Your task to perform on an android device: Open wifi settings Image 0: 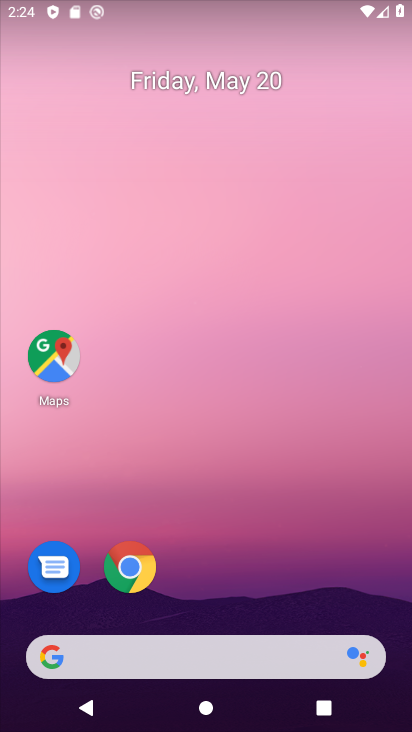
Step 0: drag from (132, 607) to (140, 136)
Your task to perform on an android device: Open wifi settings Image 1: 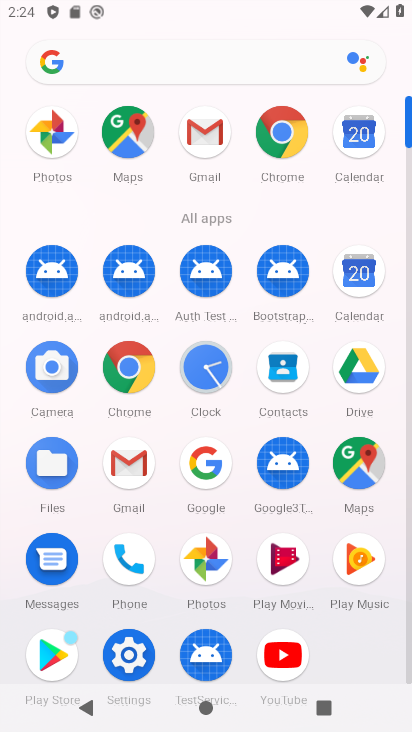
Step 1: click (119, 661)
Your task to perform on an android device: Open wifi settings Image 2: 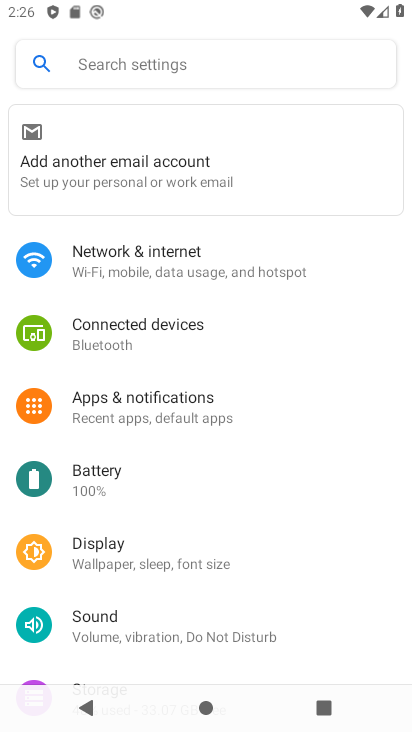
Step 2: click (200, 265)
Your task to perform on an android device: Open wifi settings Image 3: 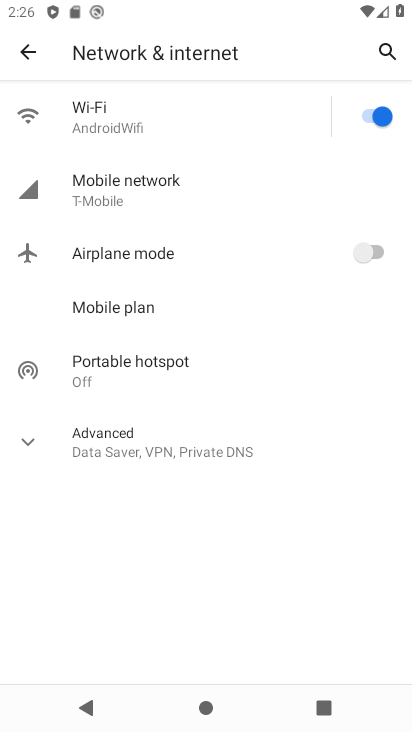
Step 3: click (137, 435)
Your task to perform on an android device: Open wifi settings Image 4: 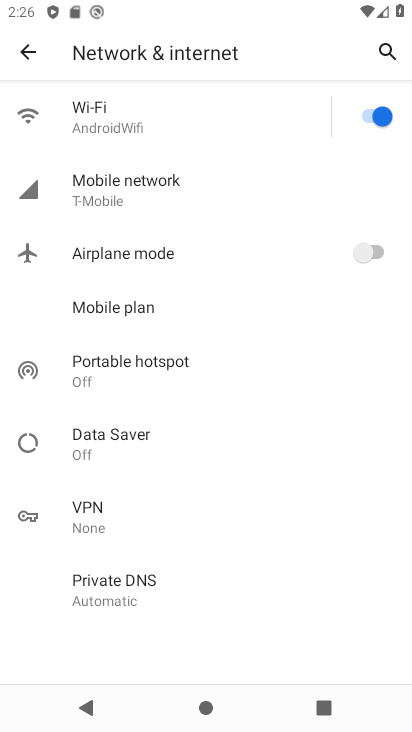
Step 4: click (125, 115)
Your task to perform on an android device: Open wifi settings Image 5: 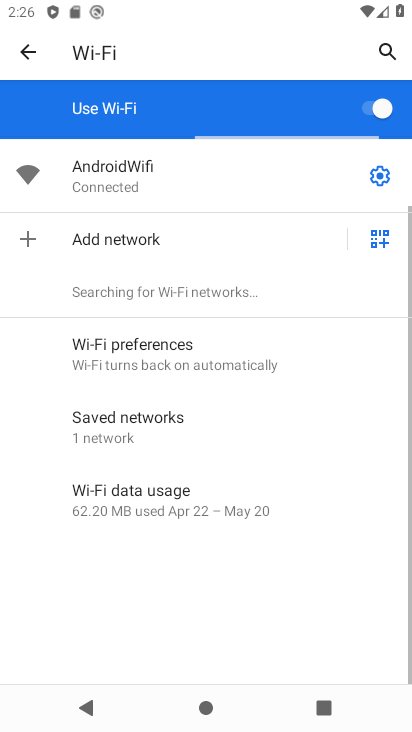
Step 5: click (377, 171)
Your task to perform on an android device: Open wifi settings Image 6: 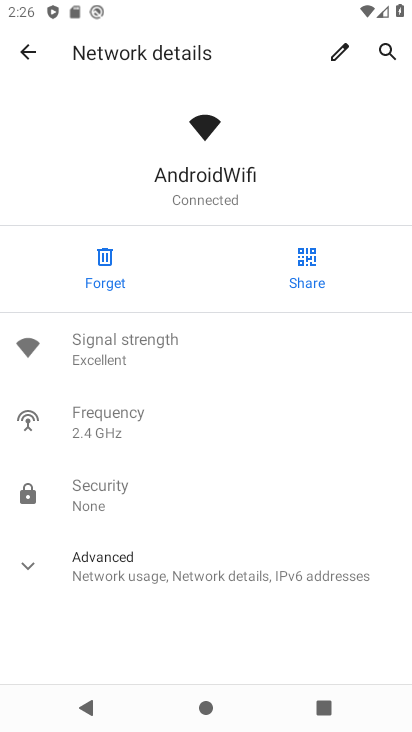
Step 6: click (221, 571)
Your task to perform on an android device: Open wifi settings Image 7: 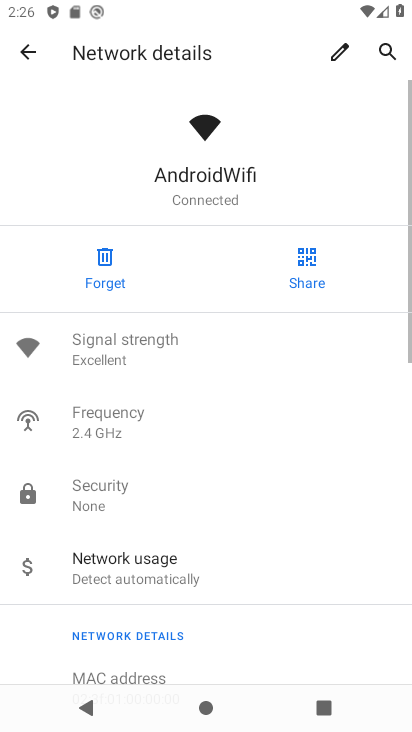
Step 7: task complete